Your task to perform on an android device: turn on the 12-hour format for clock Image 0: 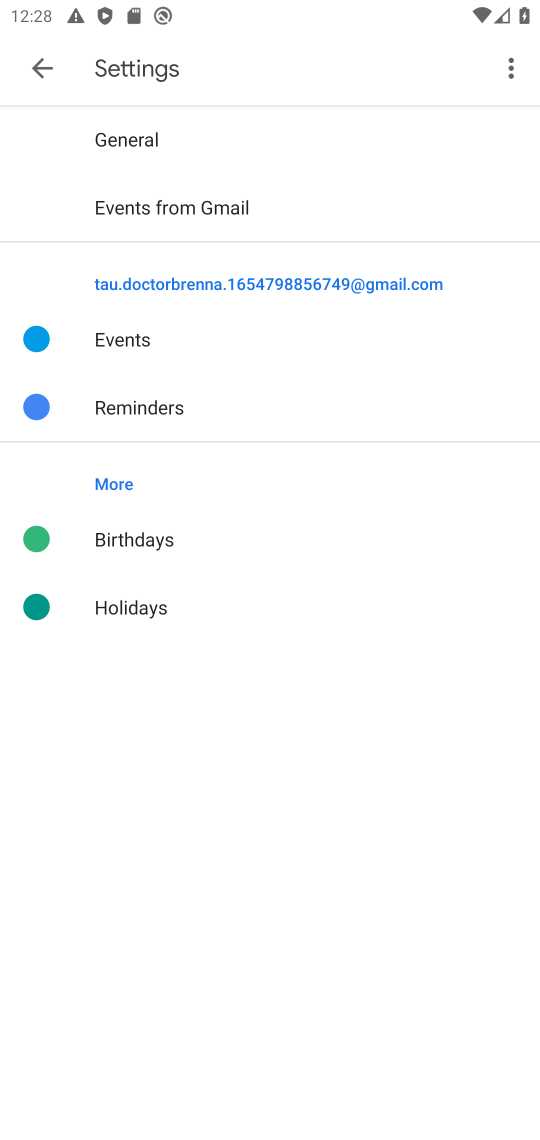
Step 0: drag from (507, 947) to (297, 330)
Your task to perform on an android device: turn on the 12-hour format for clock Image 1: 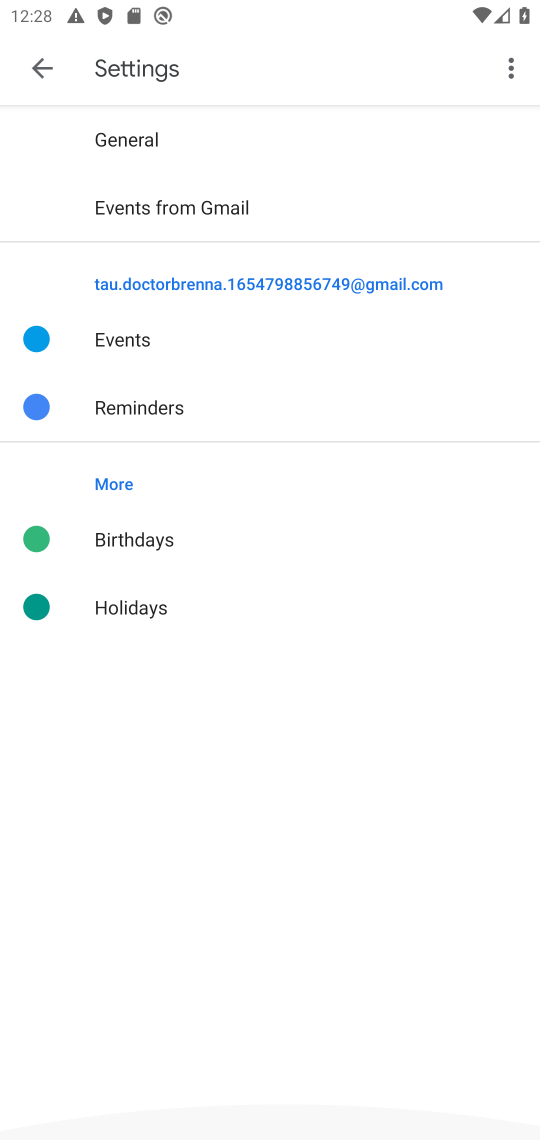
Step 1: press home button
Your task to perform on an android device: turn on the 12-hour format for clock Image 2: 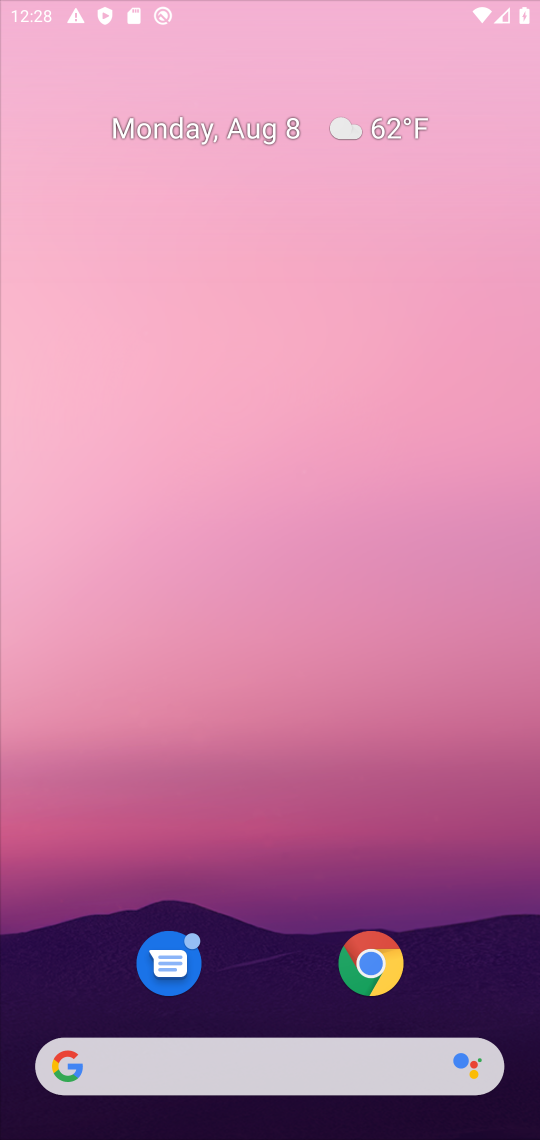
Step 2: drag from (493, 1017) to (110, 49)
Your task to perform on an android device: turn on the 12-hour format for clock Image 3: 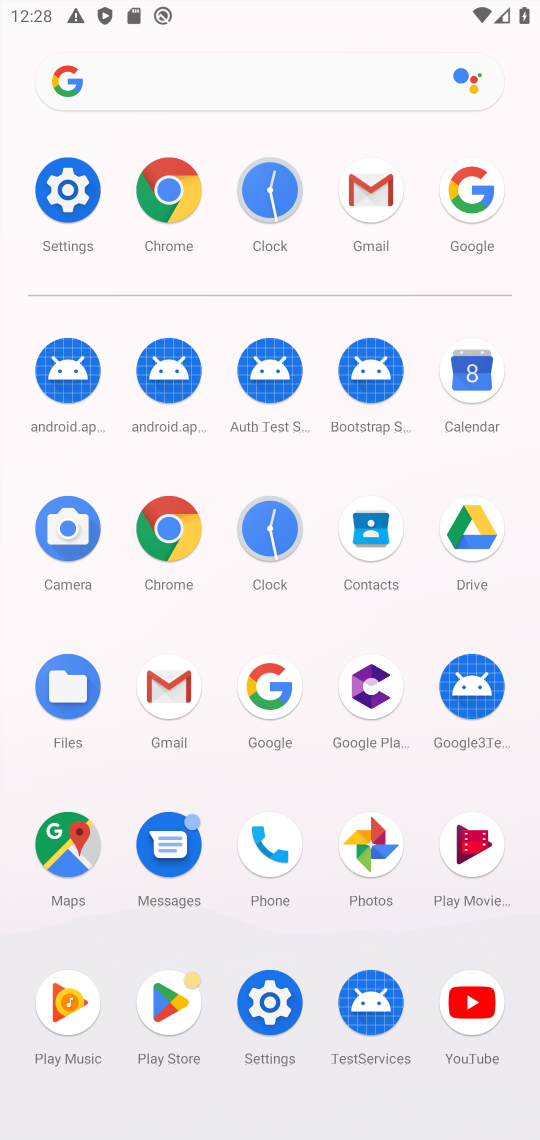
Step 3: click (283, 551)
Your task to perform on an android device: turn on the 12-hour format for clock Image 4: 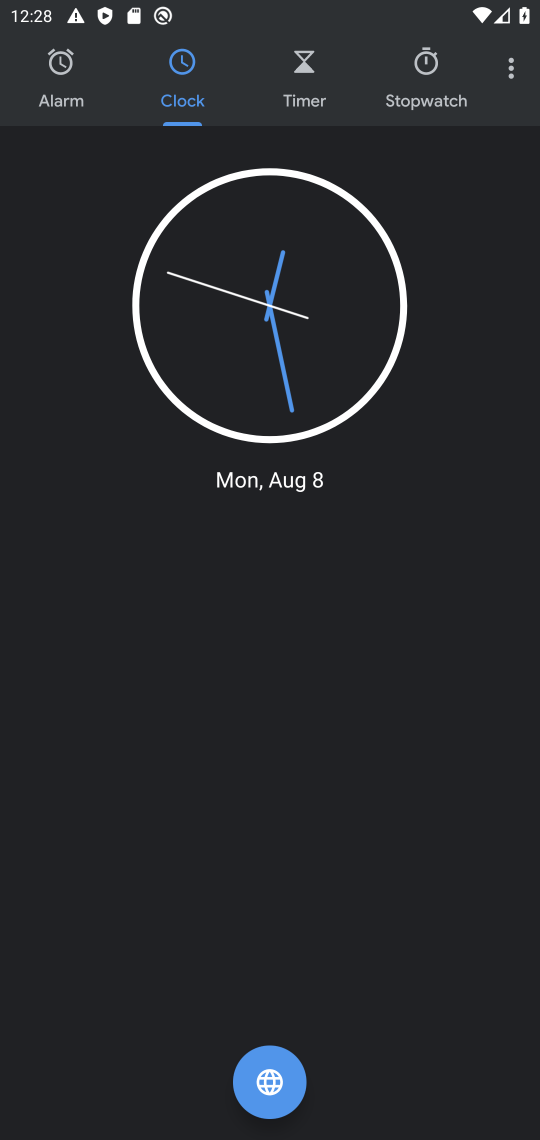
Step 4: click (512, 64)
Your task to perform on an android device: turn on the 12-hour format for clock Image 5: 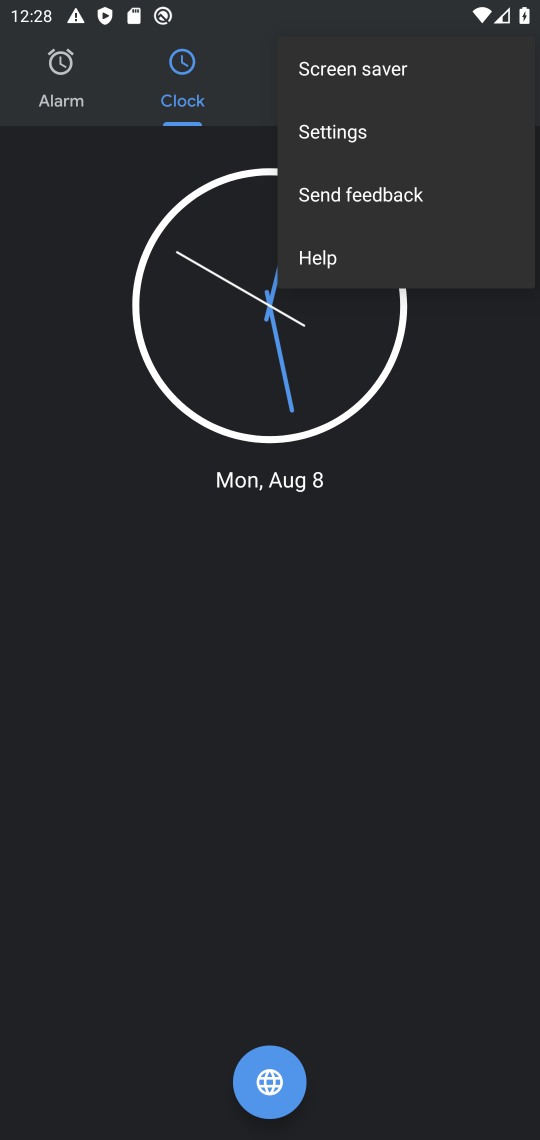
Step 5: click (374, 133)
Your task to perform on an android device: turn on the 12-hour format for clock Image 6: 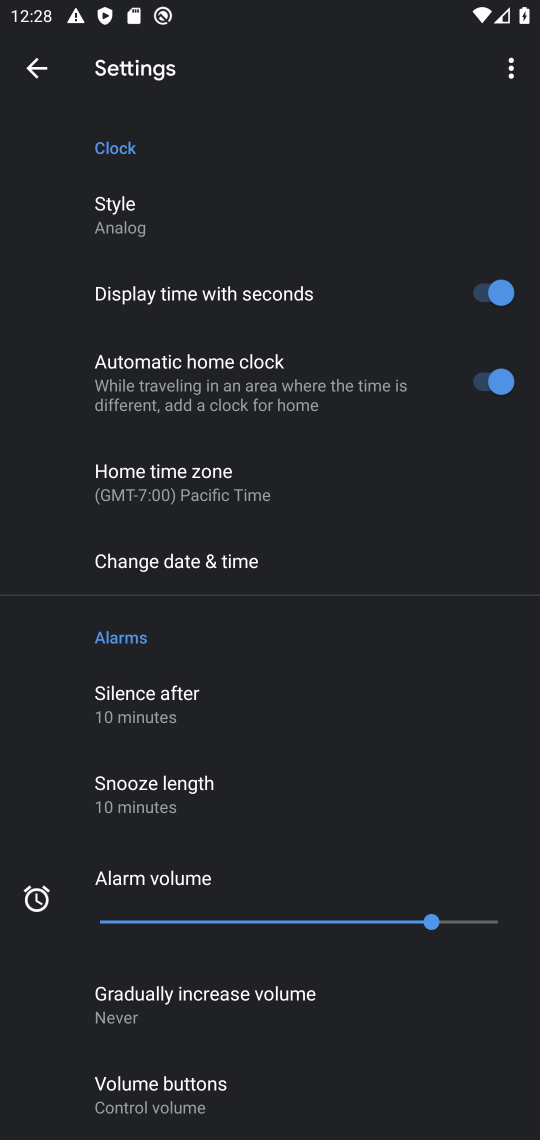
Step 6: click (156, 566)
Your task to perform on an android device: turn on the 12-hour format for clock Image 7: 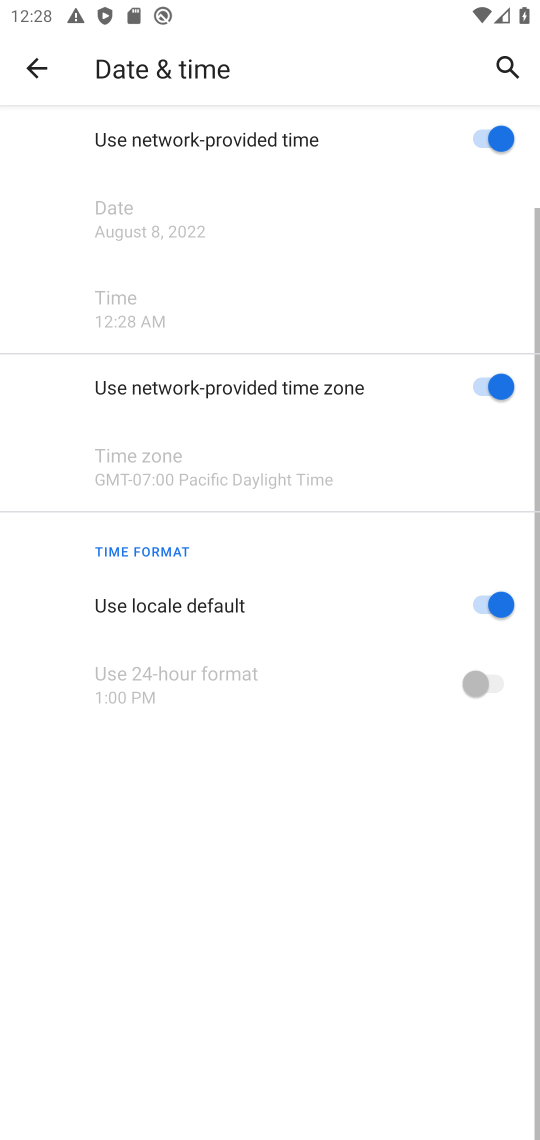
Step 7: task complete